Your task to perform on an android device: find which apps use the phone's location Image 0: 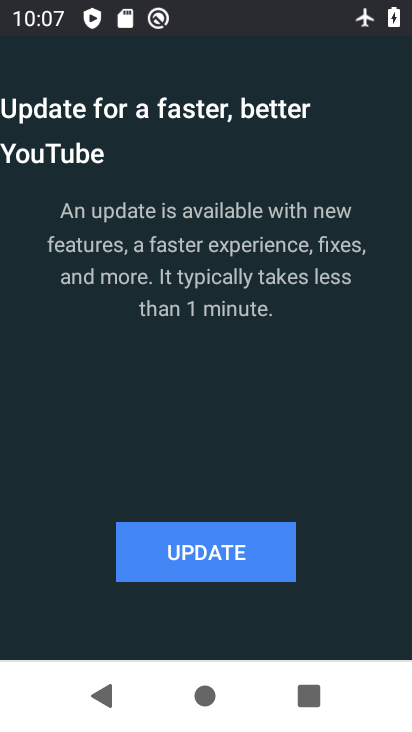
Step 0: drag from (246, 637) to (340, 469)
Your task to perform on an android device: find which apps use the phone's location Image 1: 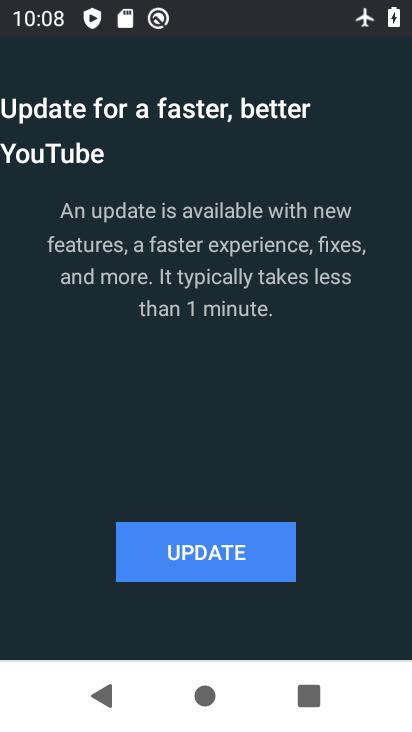
Step 1: click (252, 425)
Your task to perform on an android device: find which apps use the phone's location Image 2: 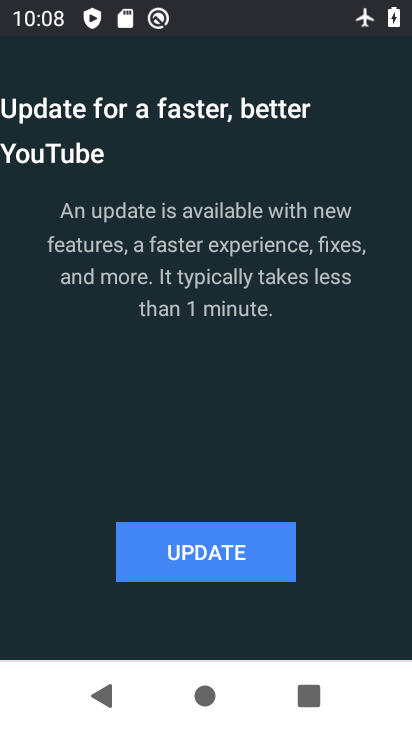
Step 2: click (229, 569)
Your task to perform on an android device: find which apps use the phone's location Image 3: 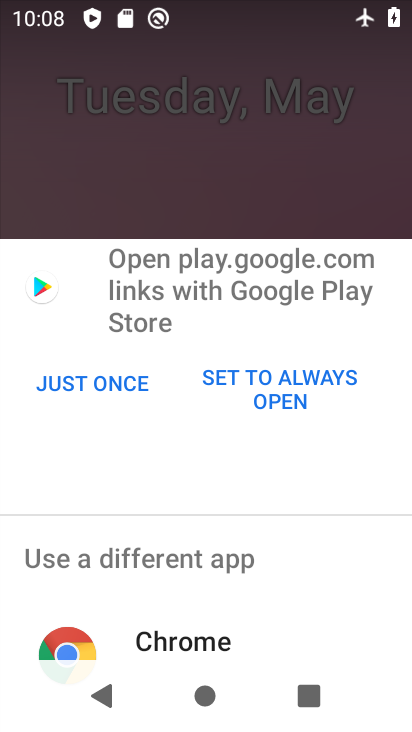
Step 3: press home button
Your task to perform on an android device: find which apps use the phone's location Image 4: 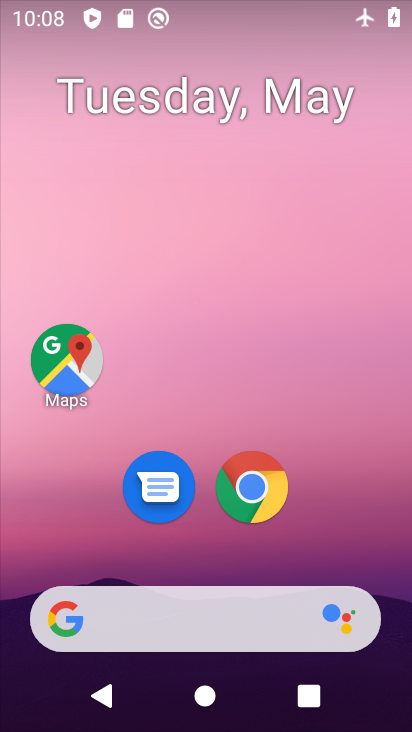
Step 4: drag from (180, 540) to (362, 40)
Your task to perform on an android device: find which apps use the phone's location Image 5: 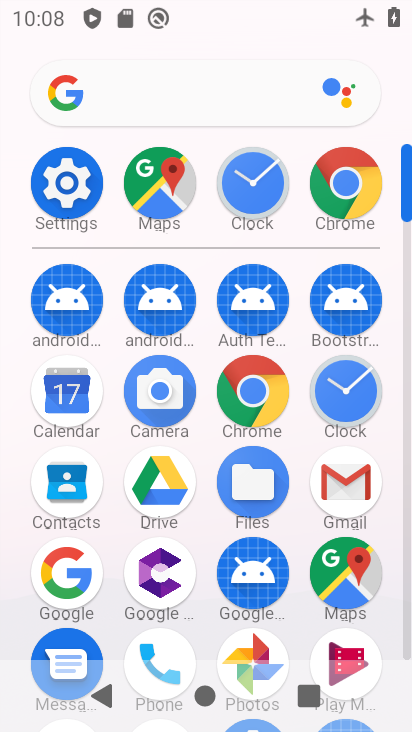
Step 5: click (72, 177)
Your task to perform on an android device: find which apps use the phone's location Image 6: 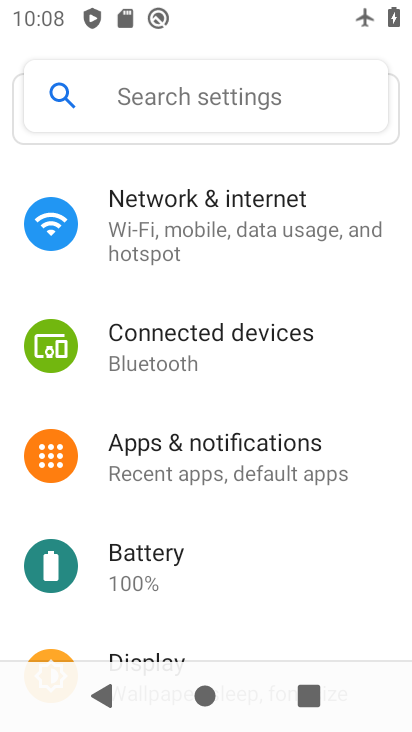
Step 6: drag from (221, 516) to (342, 113)
Your task to perform on an android device: find which apps use the phone's location Image 7: 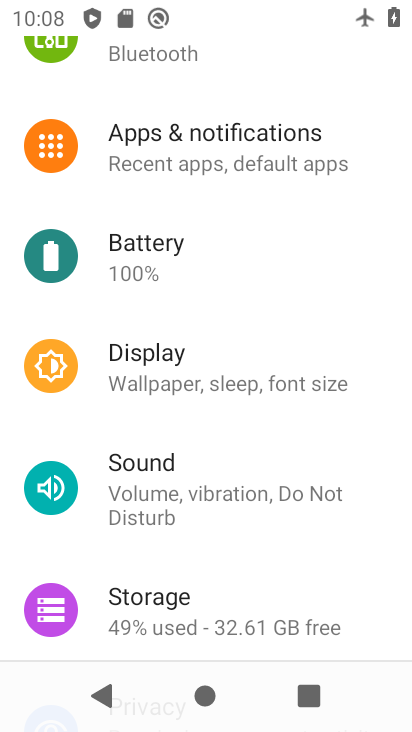
Step 7: drag from (178, 541) to (261, 36)
Your task to perform on an android device: find which apps use the phone's location Image 8: 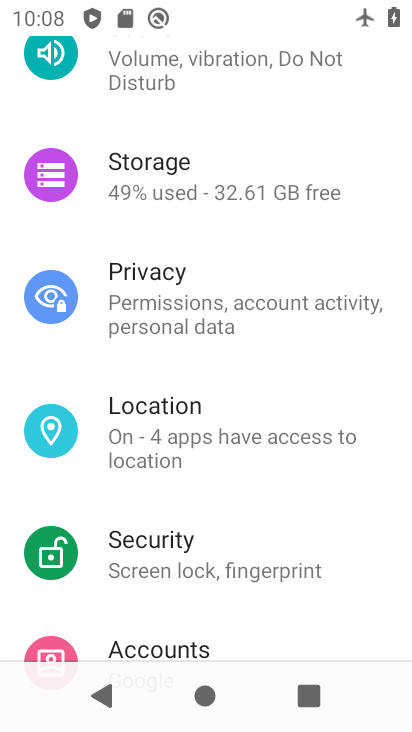
Step 8: click (181, 410)
Your task to perform on an android device: find which apps use the phone's location Image 9: 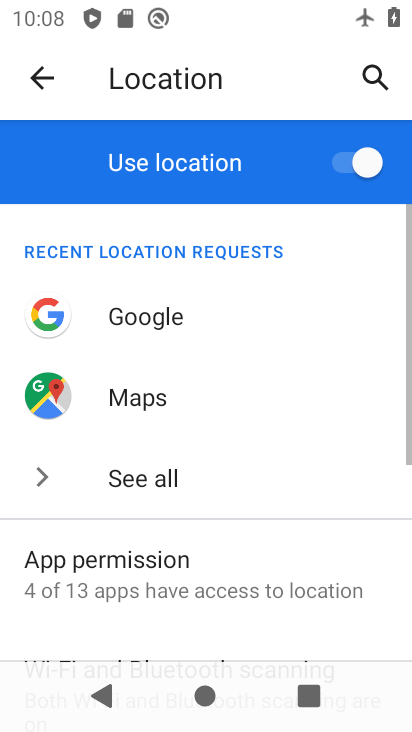
Step 9: drag from (190, 513) to (223, 90)
Your task to perform on an android device: find which apps use the phone's location Image 10: 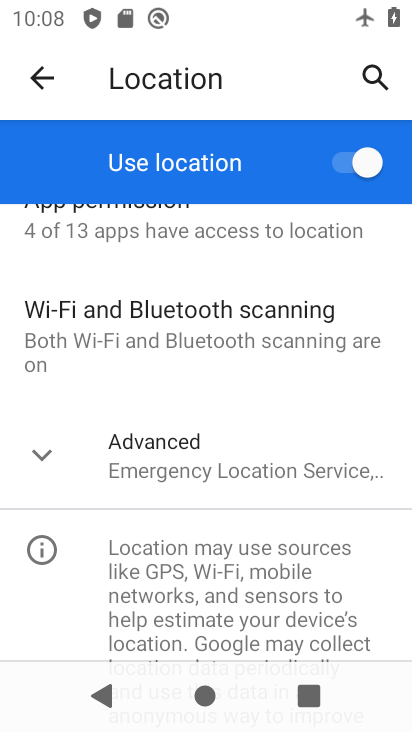
Step 10: drag from (140, 336) to (278, 601)
Your task to perform on an android device: find which apps use the phone's location Image 11: 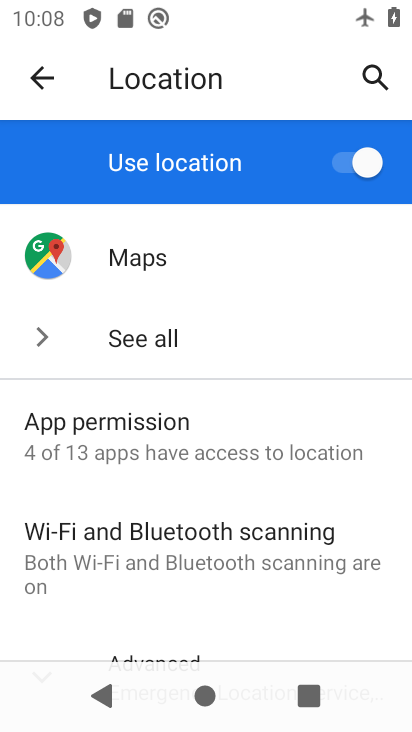
Step 11: click (180, 443)
Your task to perform on an android device: find which apps use the phone's location Image 12: 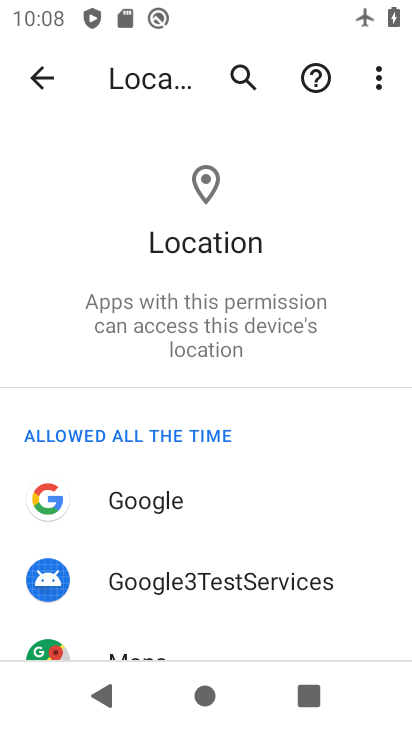
Step 12: task complete